Your task to perform on an android device: delete browsing data in the chrome app Image 0: 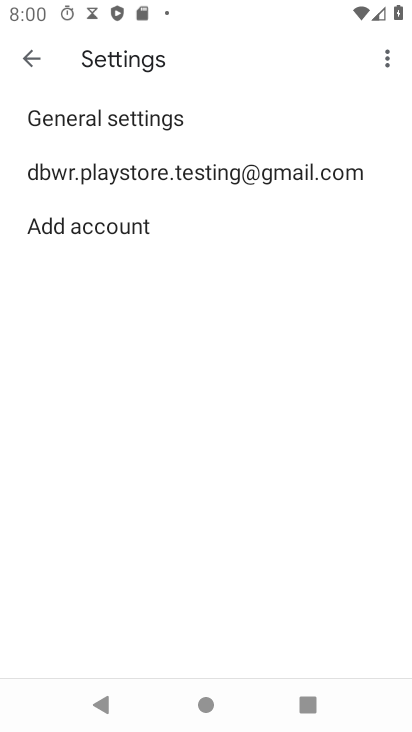
Step 0: press home button
Your task to perform on an android device: delete browsing data in the chrome app Image 1: 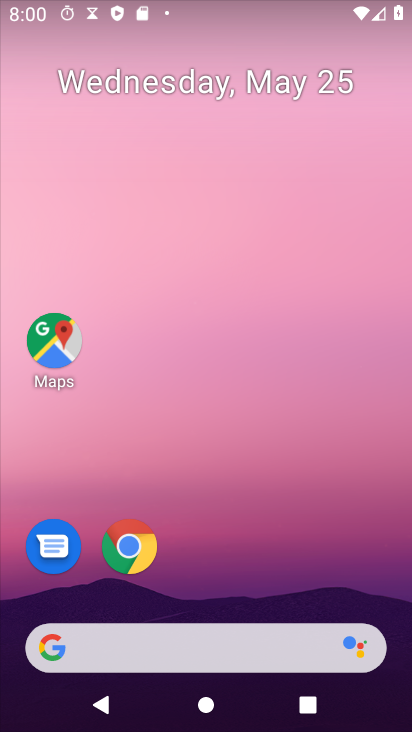
Step 1: click (119, 561)
Your task to perform on an android device: delete browsing data in the chrome app Image 2: 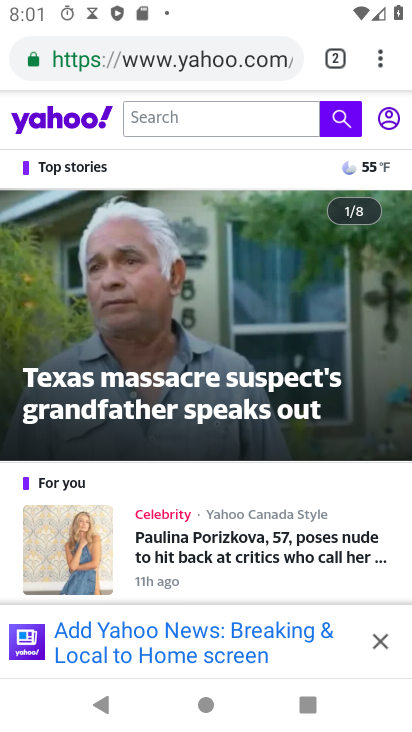
Step 2: click (381, 69)
Your task to perform on an android device: delete browsing data in the chrome app Image 3: 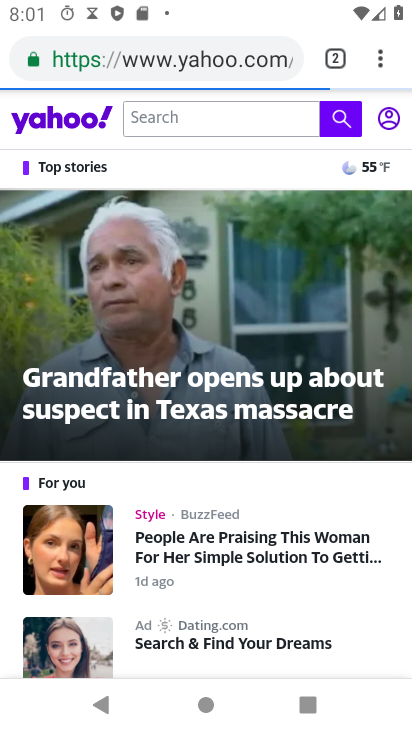
Step 3: click (383, 64)
Your task to perform on an android device: delete browsing data in the chrome app Image 4: 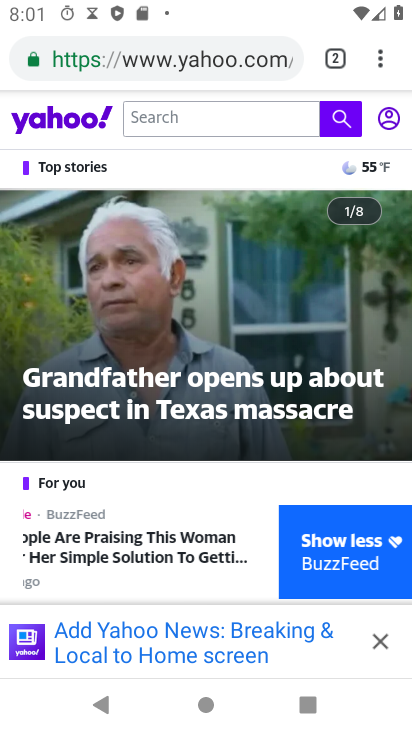
Step 4: click (382, 56)
Your task to perform on an android device: delete browsing data in the chrome app Image 5: 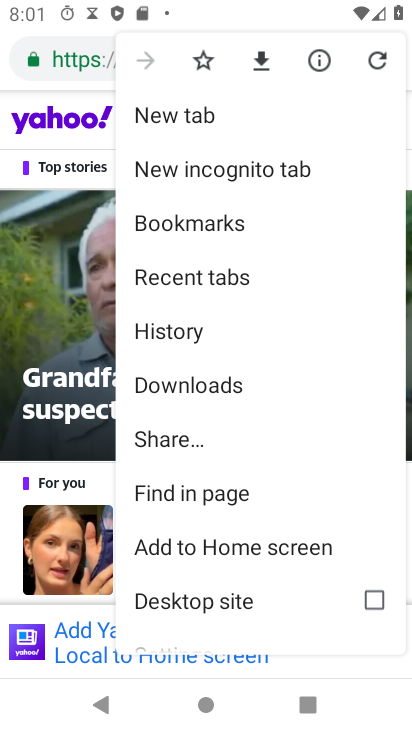
Step 5: drag from (251, 585) to (187, 197)
Your task to perform on an android device: delete browsing data in the chrome app Image 6: 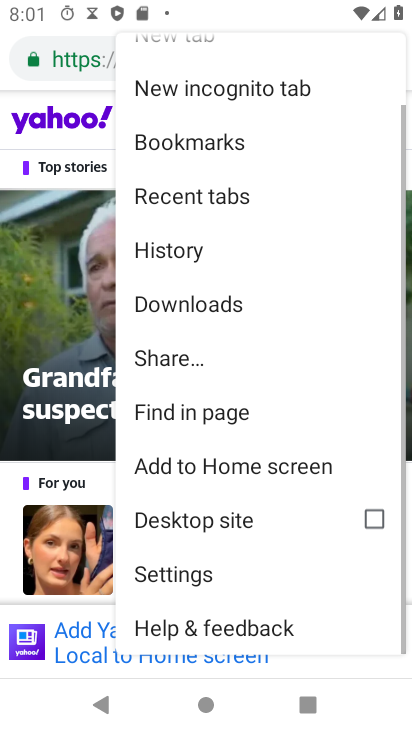
Step 6: click (201, 243)
Your task to perform on an android device: delete browsing data in the chrome app Image 7: 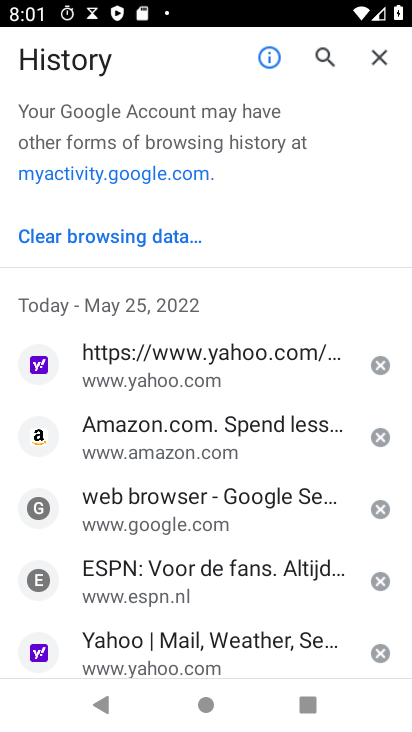
Step 7: click (128, 233)
Your task to perform on an android device: delete browsing data in the chrome app Image 8: 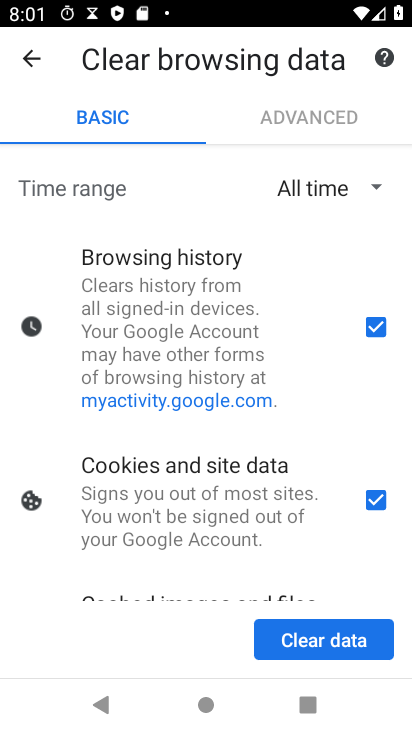
Step 8: click (308, 639)
Your task to perform on an android device: delete browsing data in the chrome app Image 9: 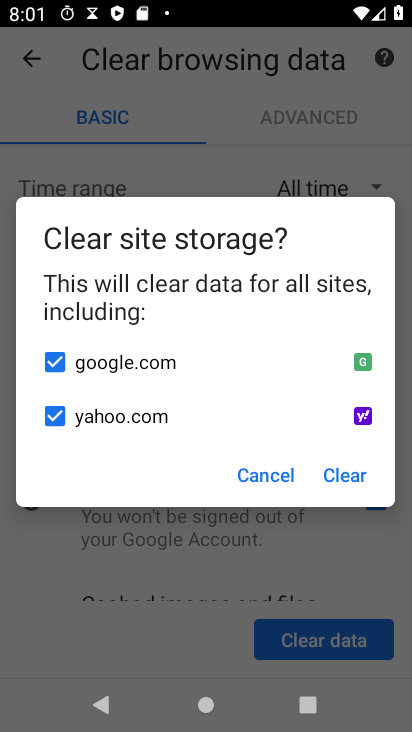
Step 9: task complete